Your task to perform on an android device: What's the weather going to be tomorrow? Image 0: 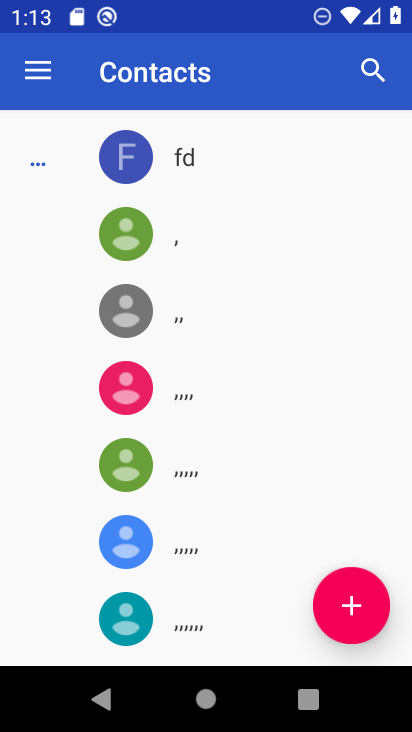
Step 0: press home button
Your task to perform on an android device: What's the weather going to be tomorrow? Image 1: 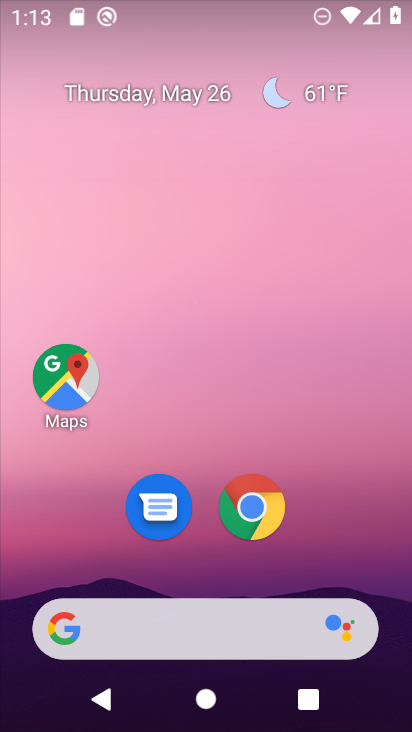
Step 1: click (219, 650)
Your task to perform on an android device: What's the weather going to be tomorrow? Image 2: 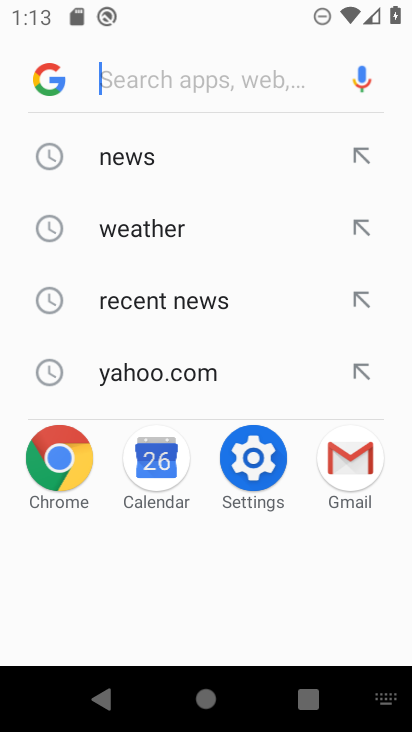
Step 2: click (185, 219)
Your task to perform on an android device: What's the weather going to be tomorrow? Image 3: 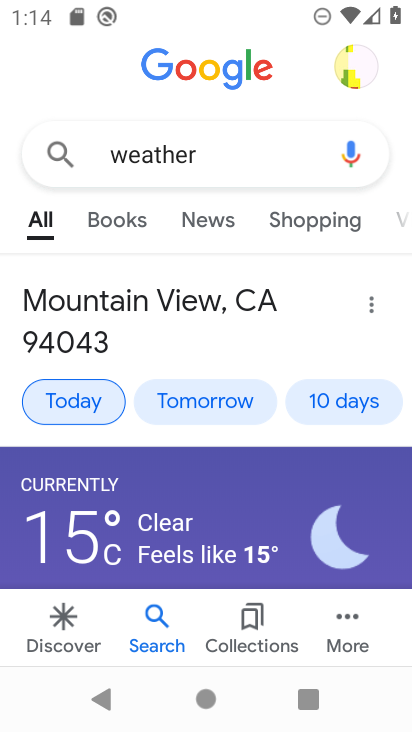
Step 3: click (231, 394)
Your task to perform on an android device: What's the weather going to be tomorrow? Image 4: 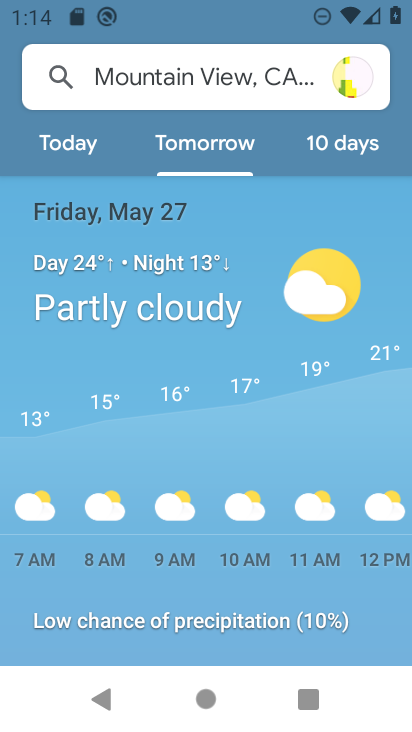
Step 4: task complete